Your task to perform on an android device: Search for energizer triple a on target.com, select the first entry, and add it to the cart. Image 0: 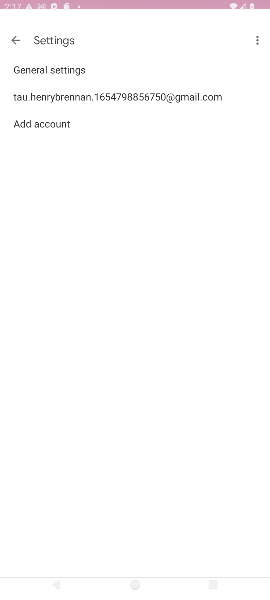
Step 0: press home button
Your task to perform on an android device: Search for energizer triple a on target.com, select the first entry, and add it to the cart. Image 1: 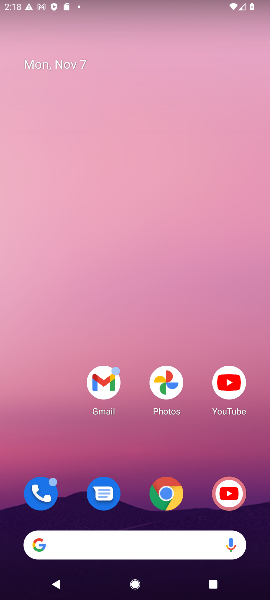
Step 1: drag from (135, 462) to (150, 157)
Your task to perform on an android device: Search for energizer triple a on target.com, select the first entry, and add it to the cart. Image 2: 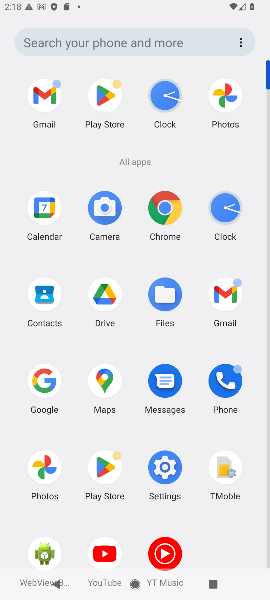
Step 2: click (162, 201)
Your task to perform on an android device: Search for energizer triple a on target.com, select the first entry, and add it to the cart. Image 3: 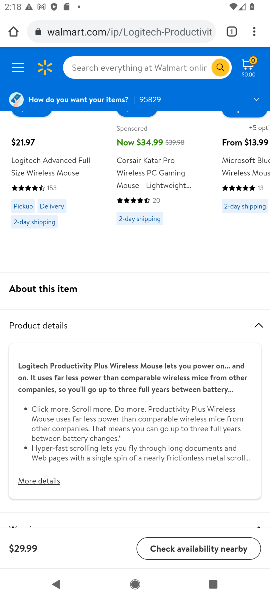
Step 3: click (119, 62)
Your task to perform on an android device: Search for energizer triple a on target.com, select the first entry, and add it to the cart. Image 4: 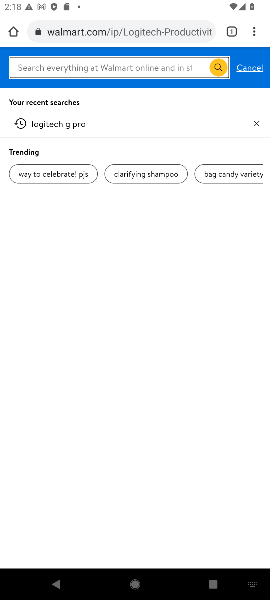
Step 4: click (80, 61)
Your task to perform on an android device: Search for energizer triple a on target.com, select the first entry, and add it to the cart. Image 5: 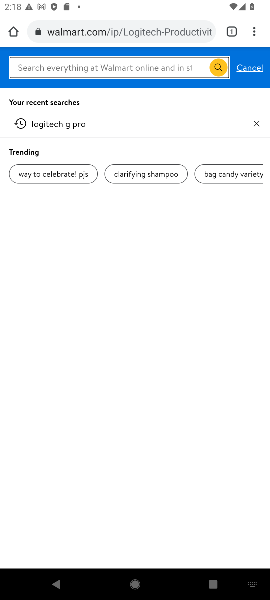
Step 5: type "target.com"
Your task to perform on an android device: Search for energizer triple a on target.com, select the first entry, and add it to the cart. Image 6: 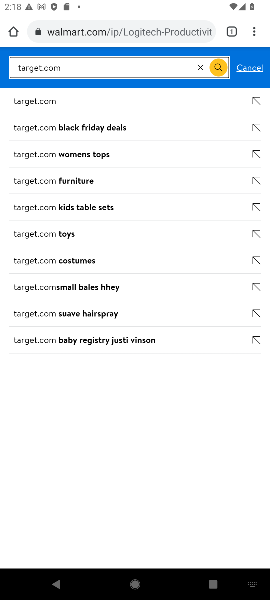
Step 6: click (70, 99)
Your task to perform on an android device: Search for energizer triple a on target.com, select the first entry, and add it to the cart. Image 7: 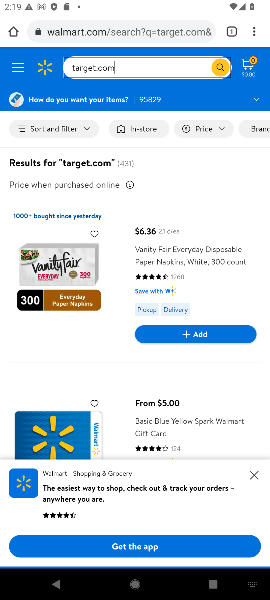
Step 7: click (118, 26)
Your task to perform on an android device: Search for energizer triple a on target.com, select the first entry, and add it to the cart. Image 8: 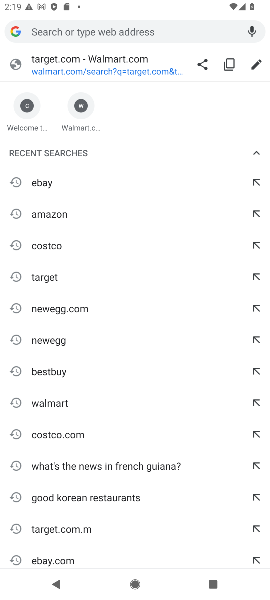
Step 8: type "target.com"
Your task to perform on an android device: Search for energizer triple a on target.com, select the first entry, and add it to the cart. Image 9: 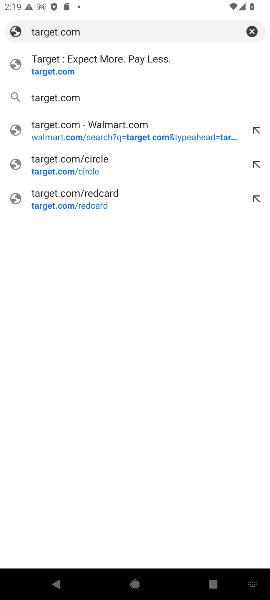
Step 9: click (73, 64)
Your task to perform on an android device: Search for energizer triple a on target.com, select the first entry, and add it to the cart. Image 10: 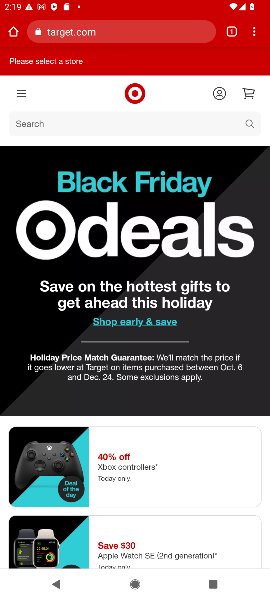
Step 10: click (37, 115)
Your task to perform on an android device: Search for energizer triple a on target.com, select the first entry, and add it to the cart. Image 11: 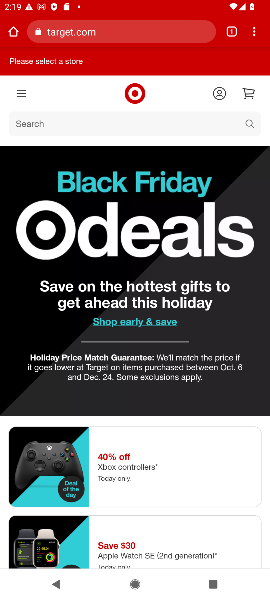
Step 11: click (42, 125)
Your task to perform on an android device: Search for energizer triple a on target.com, select the first entry, and add it to the cart. Image 12: 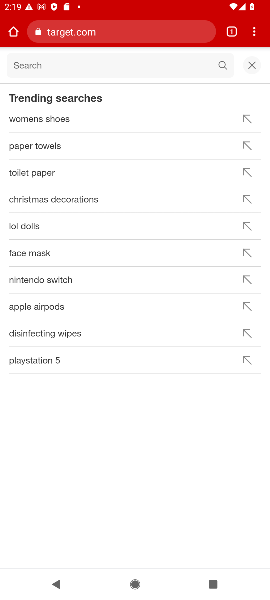
Step 12: click (31, 64)
Your task to perform on an android device: Search for energizer triple a on target.com, select the first entry, and add it to the cart. Image 13: 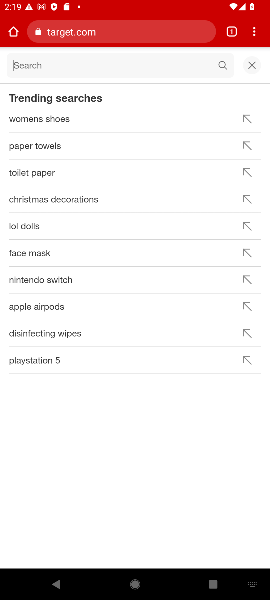
Step 13: type "energizer triple a"
Your task to perform on an android device: Search for energizer triple a on target.com, select the first entry, and add it to the cart. Image 14: 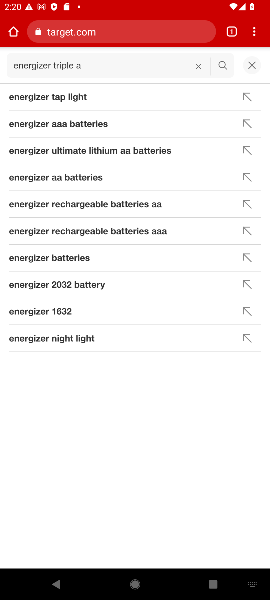
Step 14: click (49, 127)
Your task to perform on an android device: Search for energizer triple a on target.com, select the first entry, and add it to the cart. Image 15: 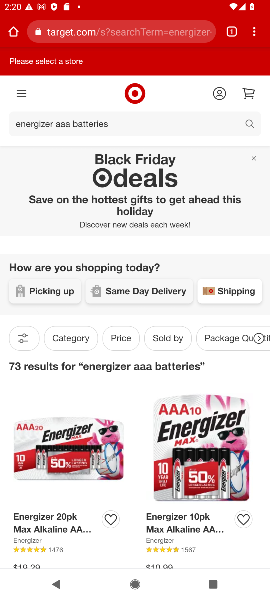
Step 15: click (70, 463)
Your task to perform on an android device: Search for energizer triple a on target.com, select the first entry, and add it to the cart. Image 16: 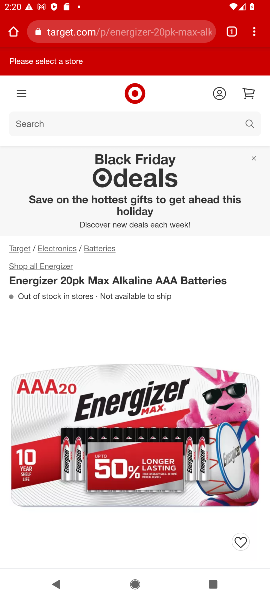
Step 16: drag from (133, 543) to (191, 175)
Your task to perform on an android device: Search for energizer triple a on target.com, select the first entry, and add it to the cart. Image 17: 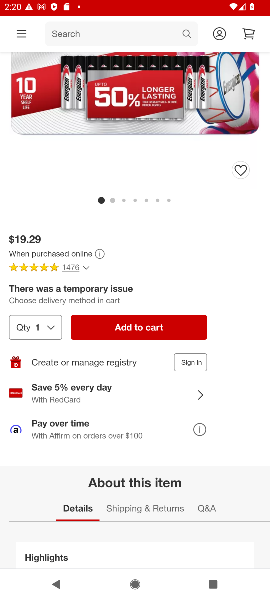
Step 17: click (138, 326)
Your task to perform on an android device: Search for energizer triple a on target.com, select the first entry, and add it to the cart. Image 18: 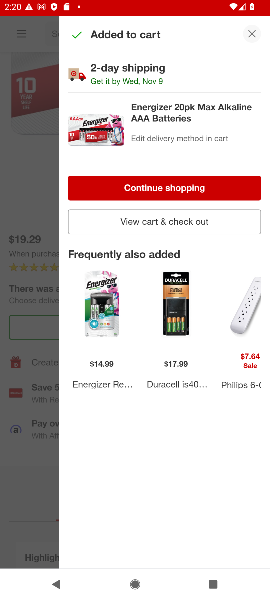
Step 18: click (252, 33)
Your task to perform on an android device: Search for energizer triple a on target.com, select the first entry, and add it to the cart. Image 19: 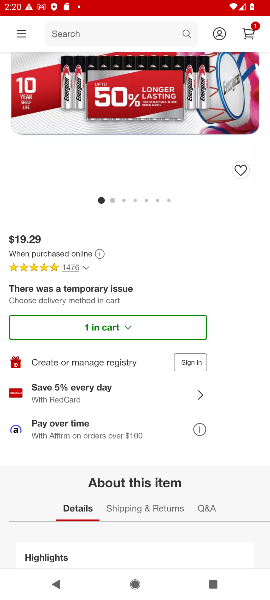
Step 19: click (247, 29)
Your task to perform on an android device: Search for energizer triple a on target.com, select the first entry, and add it to the cart. Image 20: 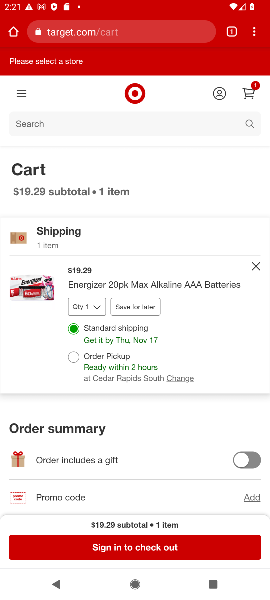
Step 20: task complete